Your task to perform on an android device: allow cookies in the chrome app Image 0: 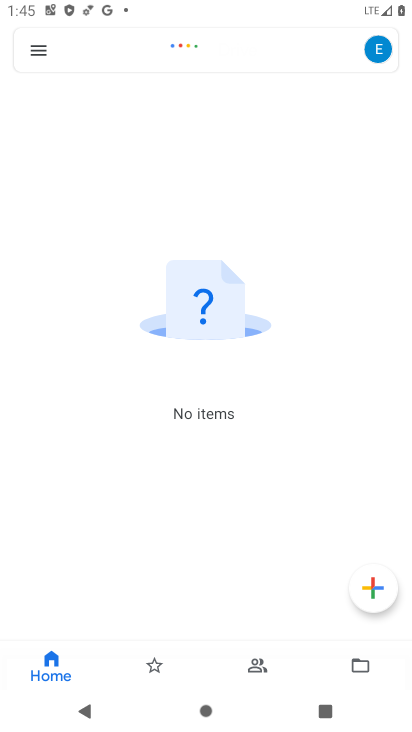
Step 0: press home button
Your task to perform on an android device: allow cookies in the chrome app Image 1: 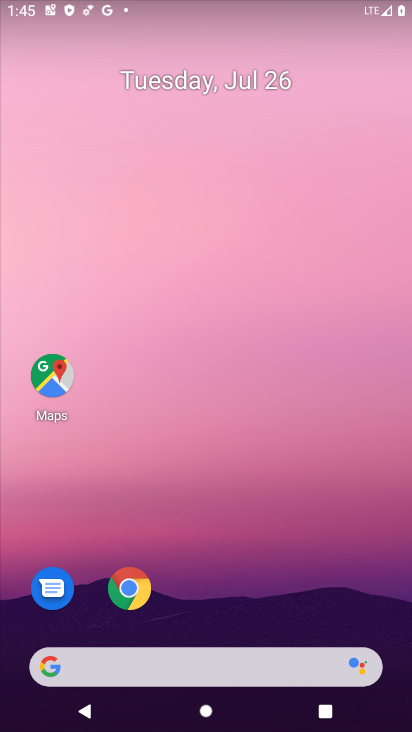
Step 1: drag from (200, 654) to (178, 25)
Your task to perform on an android device: allow cookies in the chrome app Image 2: 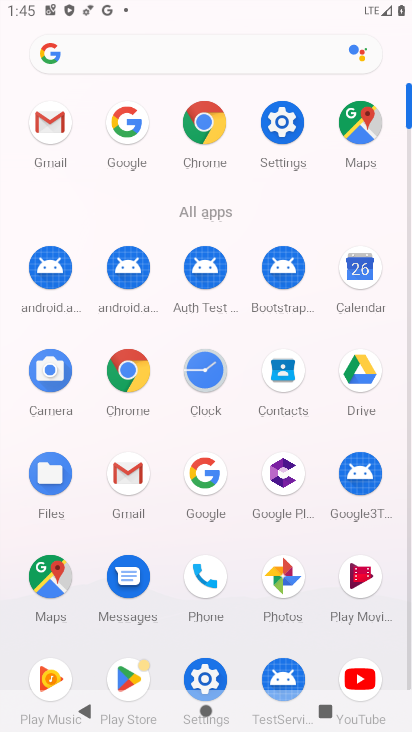
Step 2: click (120, 377)
Your task to perform on an android device: allow cookies in the chrome app Image 3: 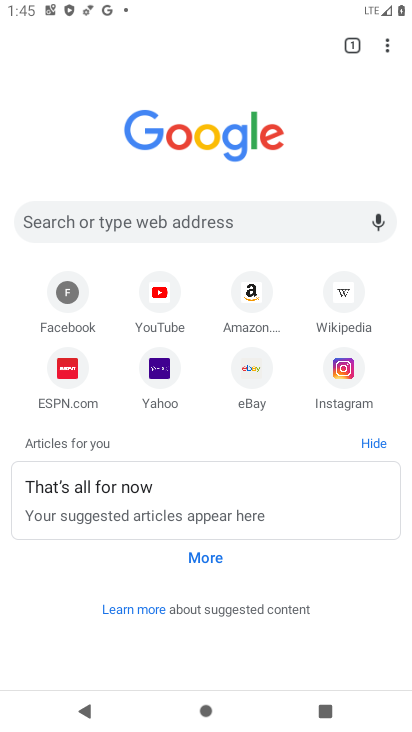
Step 3: drag from (391, 39) to (217, 437)
Your task to perform on an android device: allow cookies in the chrome app Image 4: 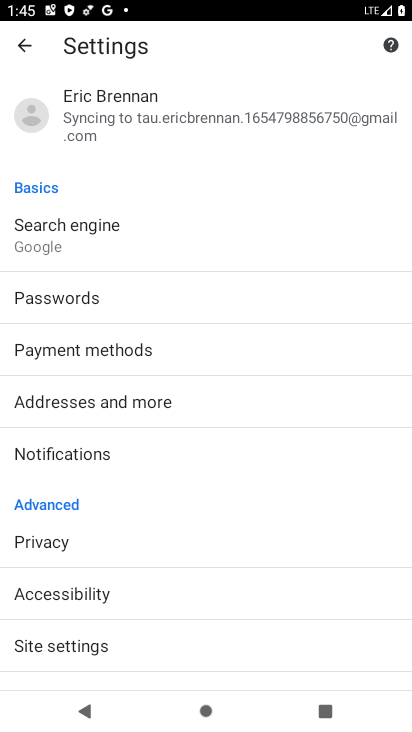
Step 4: drag from (182, 505) to (163, 186)
Your task to perform on an android device: allow cookies in the chrome app Image 5: 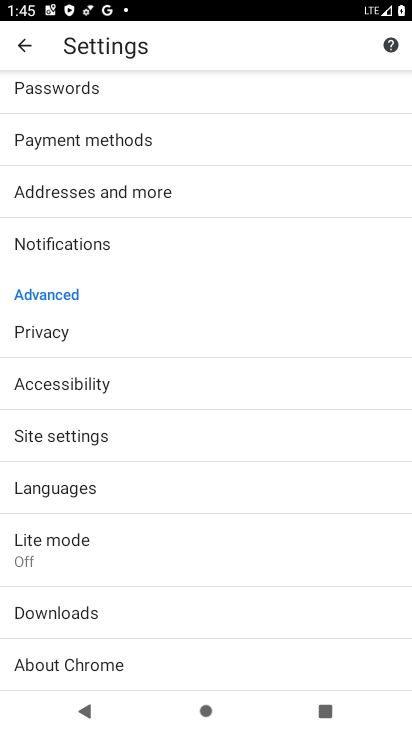
Step 5: click (31, 446)
Your task to perform on an android device: allow cookies in the chrome app Image 6: 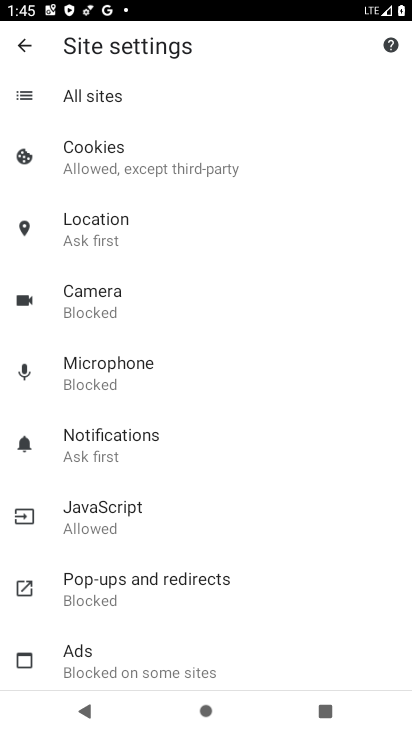
Step 6: click (91, 167)
Your task to perform on an android device: allow cookies in the chrome app Image 7: 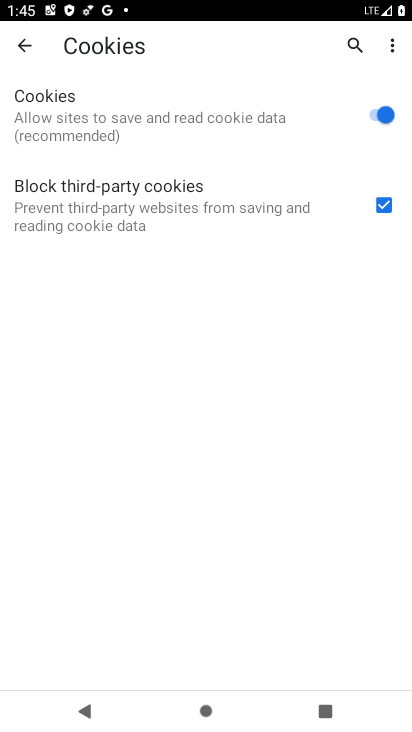
Step 7: task complete